Your task to perform on an android device: Do I have any events this weekend? Image 0: 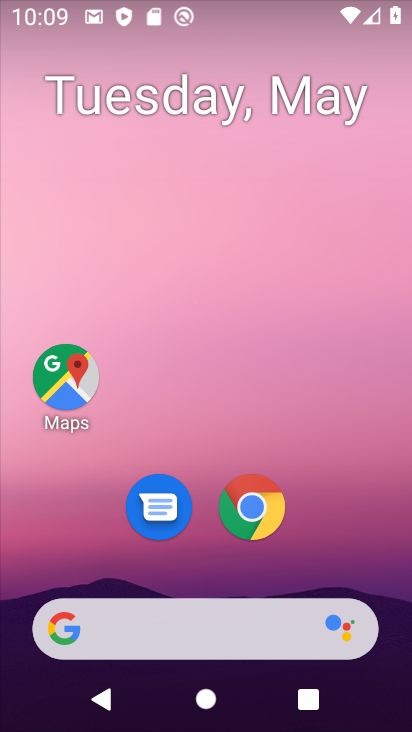
Step 0: drag from (313, 428) to (208, 69)
Your task to perform on an android device: Do I have any events this weekend? Image 1: 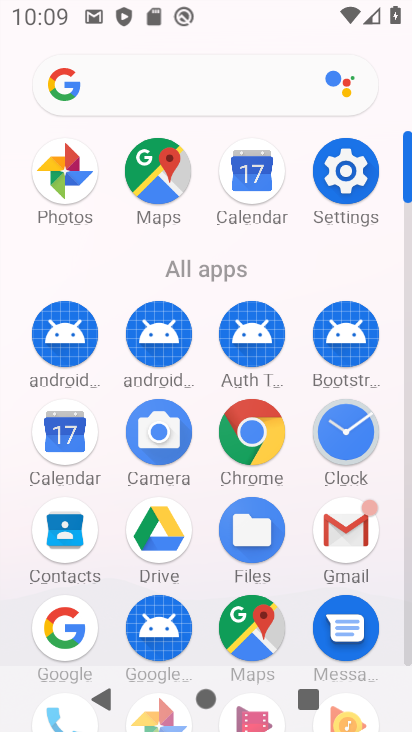
Step 1: click (54, 433)
Your task to perform on an android device: Do I have any events this weekend? Image 2: 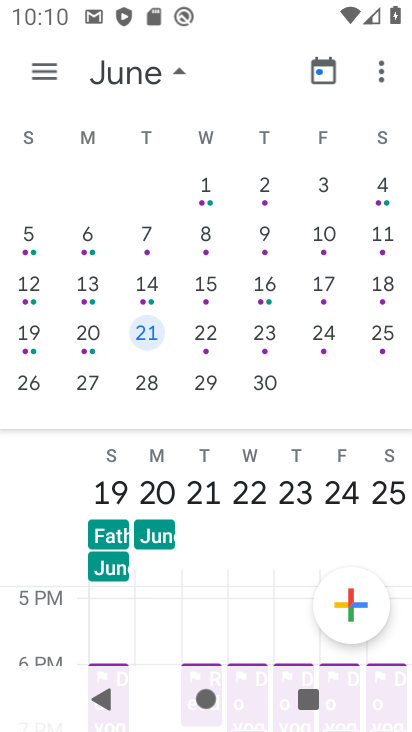
Step 2: task complete